Your task to perform on an android device: Go to settings Image 0: 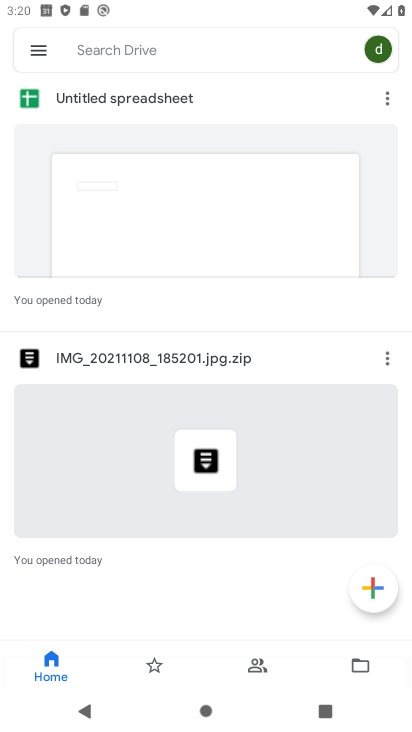
Step 0: press home button
Your task to perform on an android device: Go to settings Image 1: 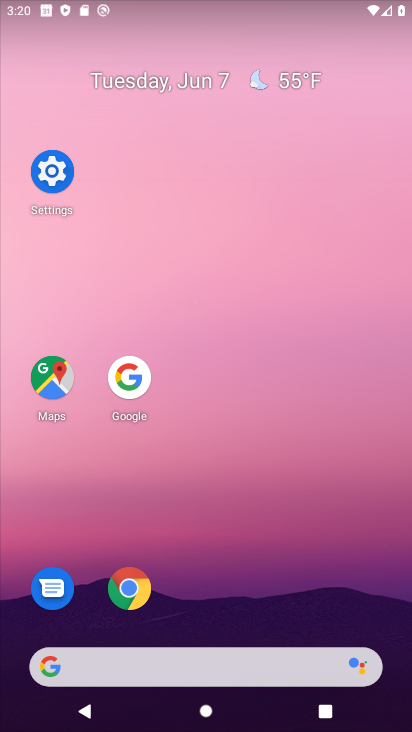
Step 1: click (74, 174)
Your task to perform on an android device: Go to settings Image 2: 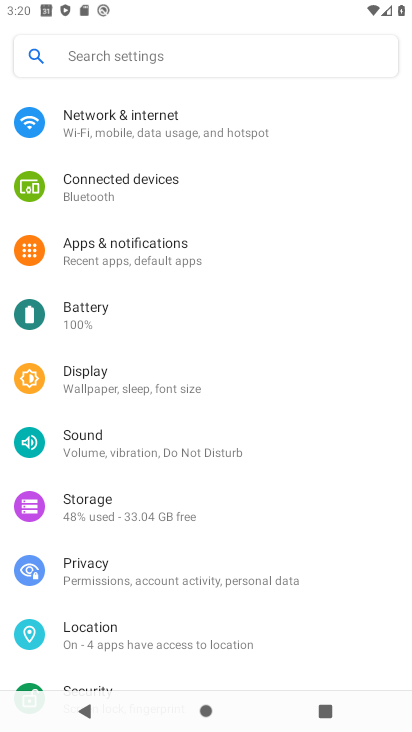
Step 2: task complete